Your task to perform on an android device: snooze an email in the gmail app Image 0: 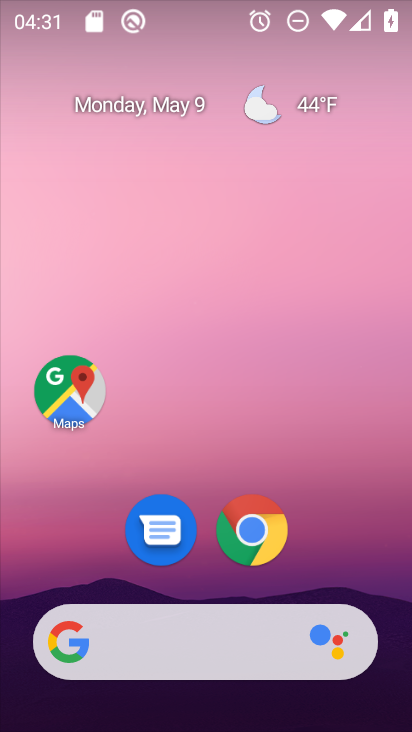
Step 0: press home button
Your task to perform on an android device: snooze an email in the gmail app Image 1: 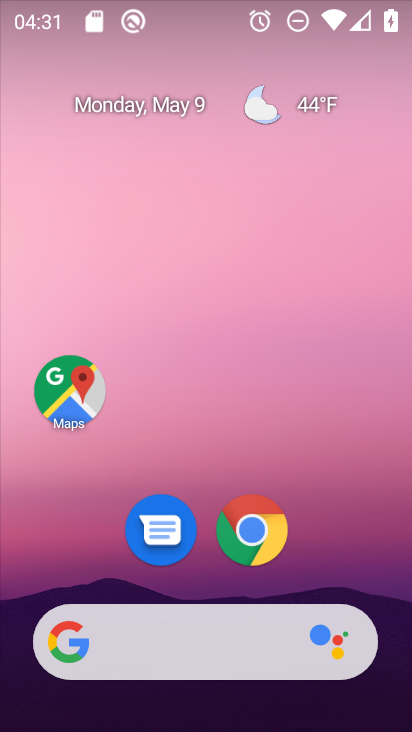
Step 1: drag from (208, 492) to (208, 162)
Your task to perform on an android device: snooze an email in the gmail app Image 2: 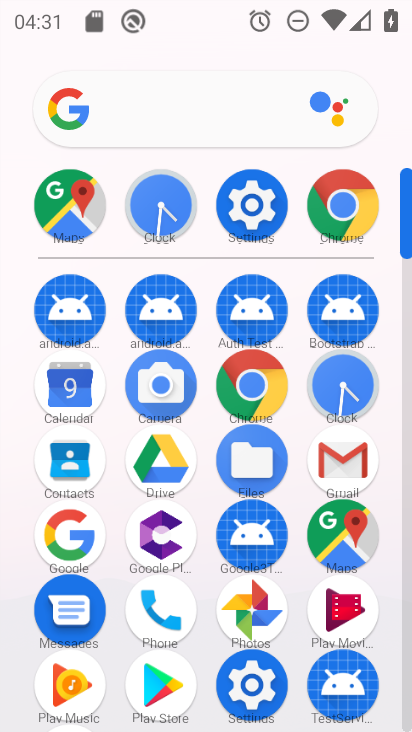
Step 2: click (340, 449)
Your task to perform on an android device: snooze an email in the gmail app Image 3: 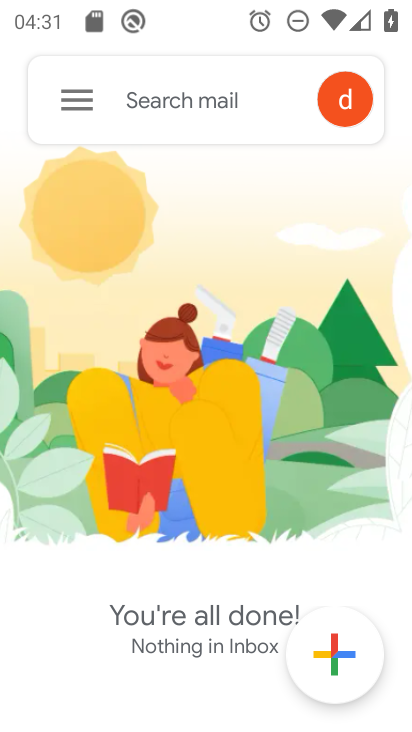
Step 3: click (78, 87)
Your task to perform on an android device: snooze an email in the gmail app Image 4: 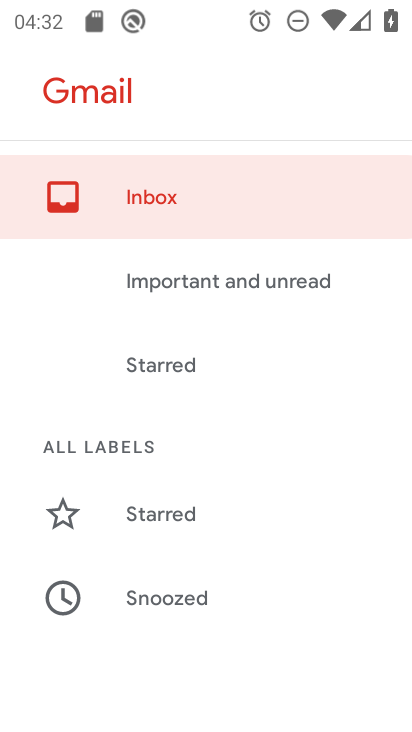
Step 4: drag from (180, 578) to (222, 198)
Your task to perform on an android device: snooze an email in the gmail app Image 5: 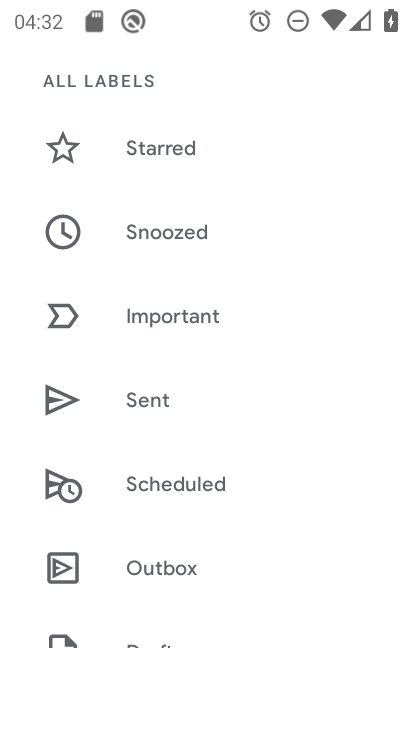
Step 5: drag from (171, 601) to (200, 227)
Your task to perform on an android device: snooze an email in the gmail app Image 6: 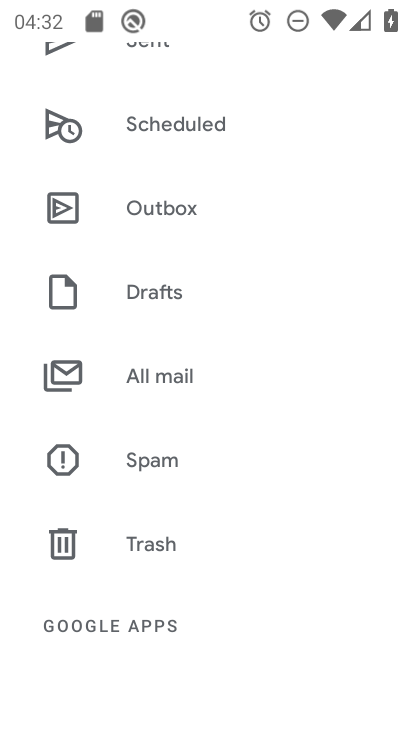
Step 6: click (200, 371)
Your task to perform on an android device: snooze an email in the gmail app Image 7: 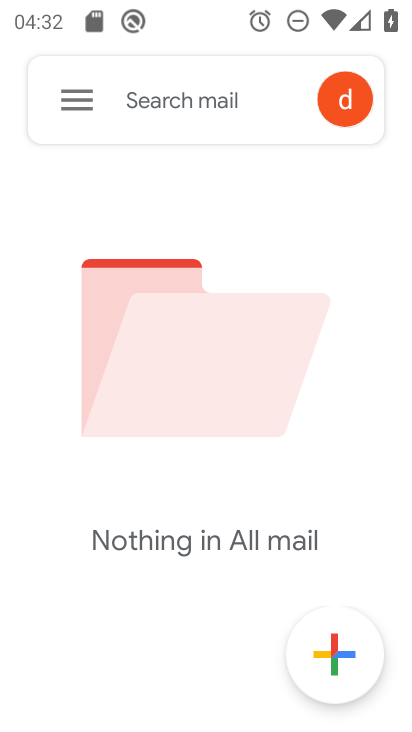
Step 7: task complete